Your task to perform on an android device: Go to internet settings Image 0: 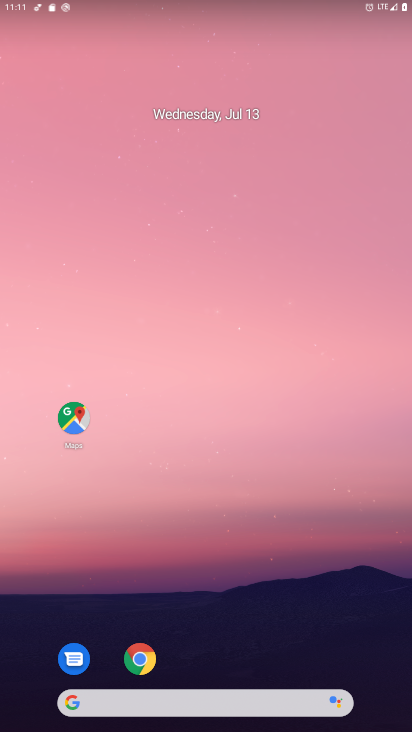
Step 0: press home button
Your task to perform on an android device: Go to internet settings Image 1: 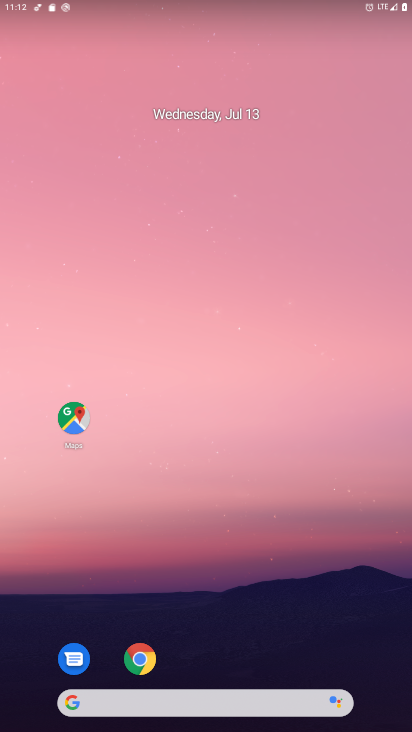
Step 1: drag from (197, 668) to (198, 6)
Your task to perform on an android device: Go to internet settings Image 2: 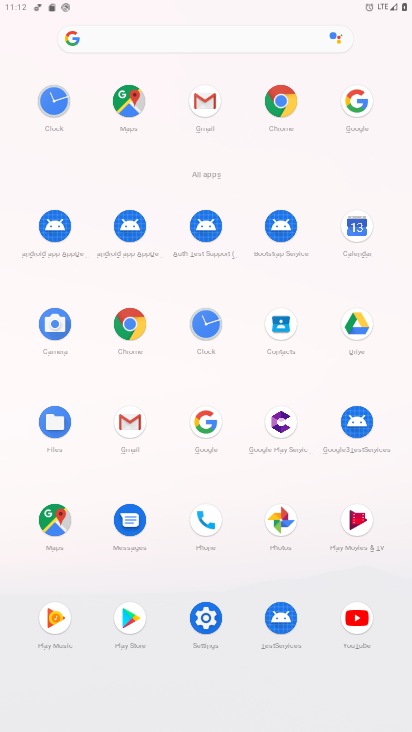
Step 2: click (204, 611)
Your task to perform on an android device: Go to internet settings Image 3: 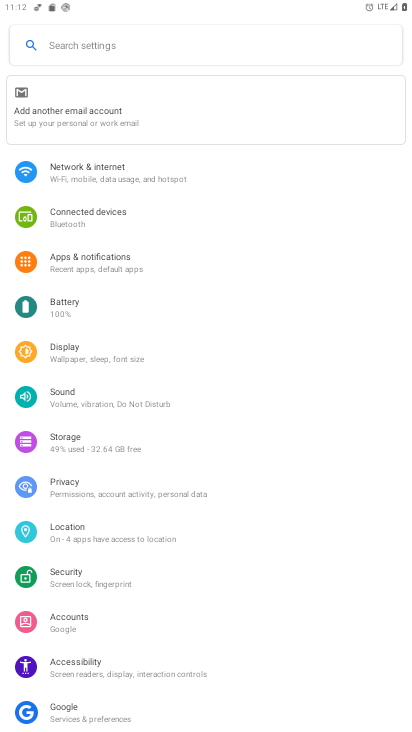
Step 3: click (108, 164)
Your task to perform on an android device: Go to internet settings Image 4: 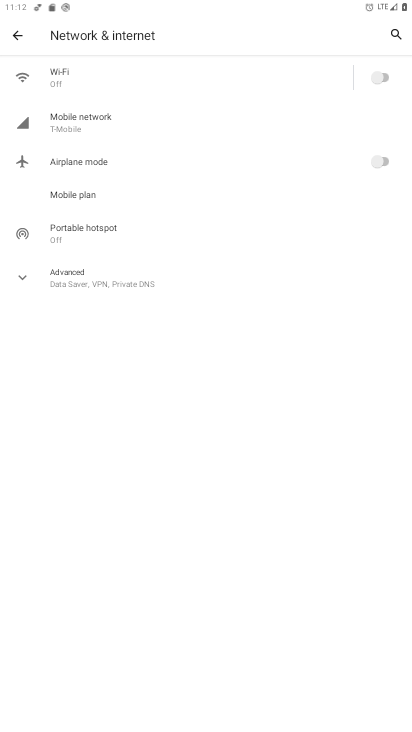
Step 4: click (25, 273)
Your task to perform on an android device: Go to internet settings Image 5: 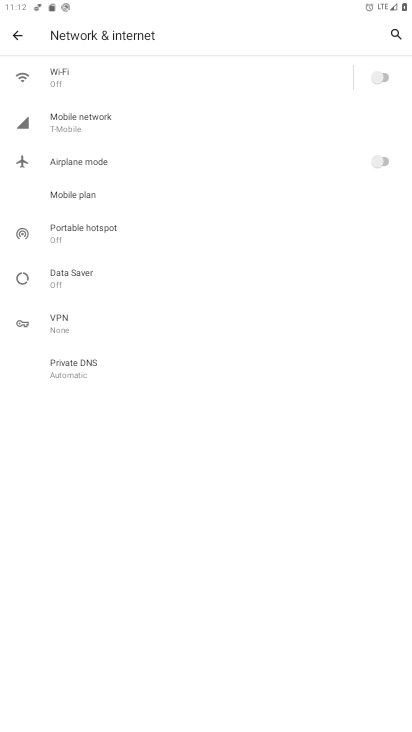
Step 5: task complete